Your task to perform on an android device: turn on improve location accuracy Image 0: 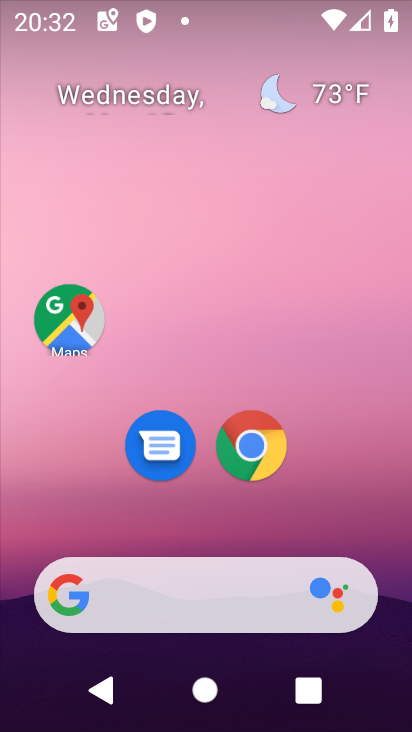
Step 0: drag from (322, 534) to (314, 182)
Your task to perform on an android device: turn on improve location accuracy Image 1: 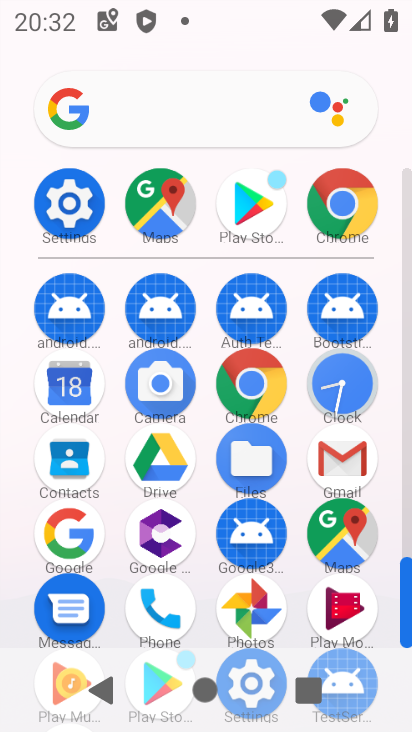
Step 1: click (69, 196)
Your task to perform on an android device: turn on improve location accuracy Image 2: 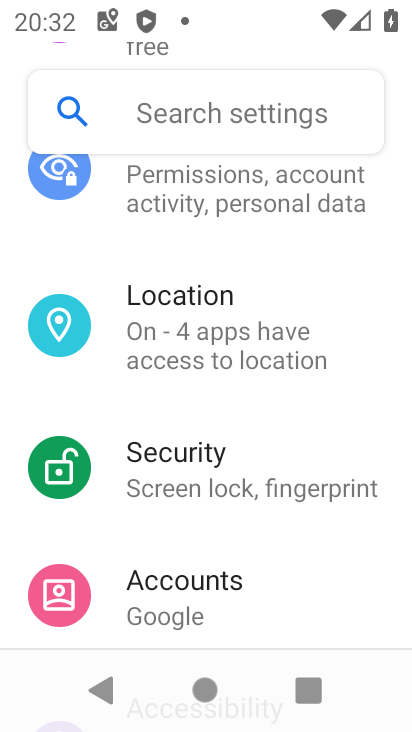
Step 2: click (234, 307)
Your task to perform on an android device: turn on improve location accuracy Image 3: 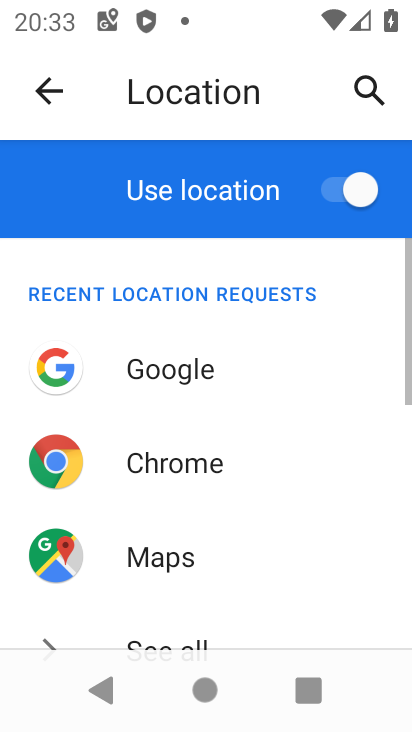
Step 3: drag from (245, 570) to (247, 256)
Your task to perform on an android device: turn on improve location accuracy Image 4: 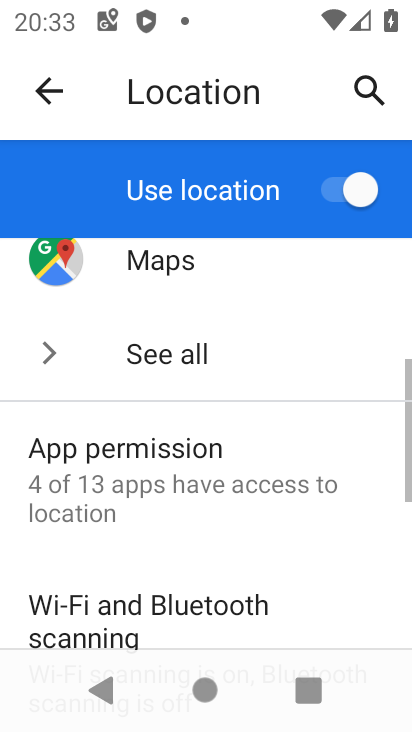
Step 4: drag from (244, 546) to (261, 290)
Your task to perform on an android device: turn on improve location accuracy Image 5: 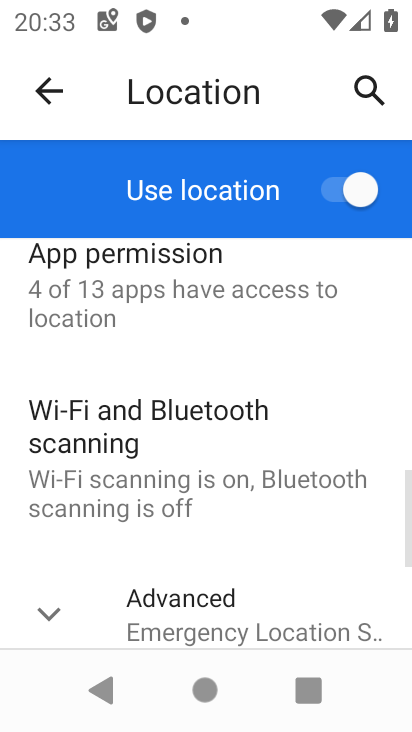
Step 5: drag from (215, 619) to (286, 303)
Your task to perform on an android device: turn on improve location accuracy Image 6: 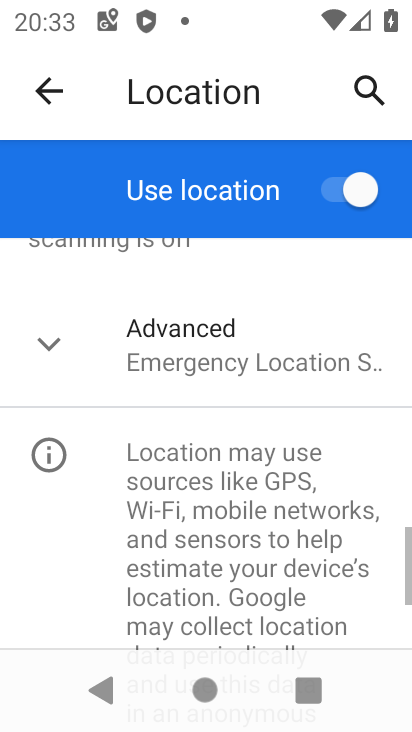
Step 6: click (132, 440)
Your task to perform on an android device: turn on improve location accuracy Image 7: 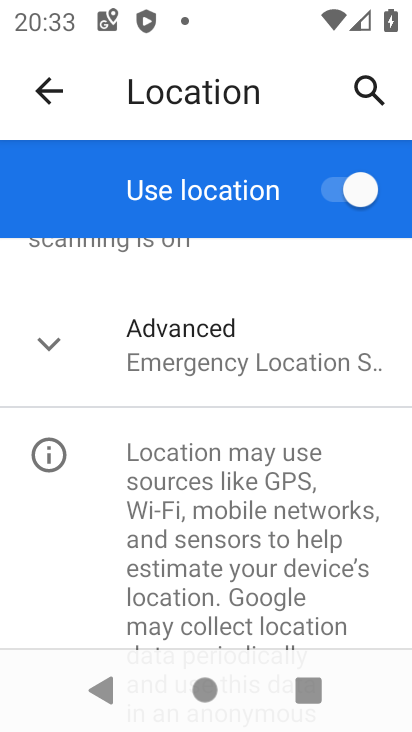
Step 7: click (144, 365)
Your task to perform on an android device: turn on improve location accuracy Image 8: 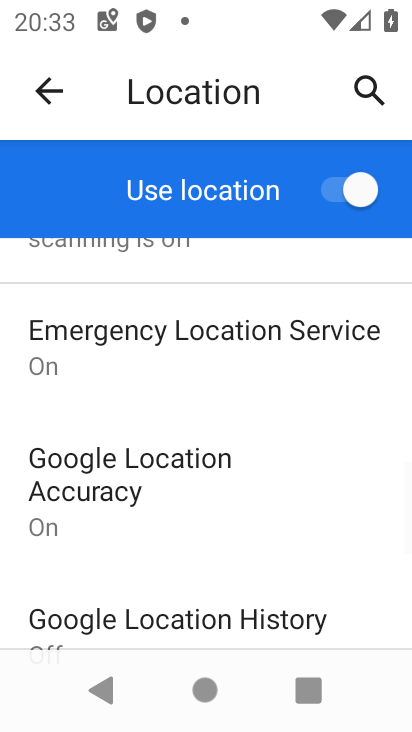
Step 8: drag from (172, 560) to (200, 412)
Your task to perform on an android device: turn on improve location accuracy Image 9: 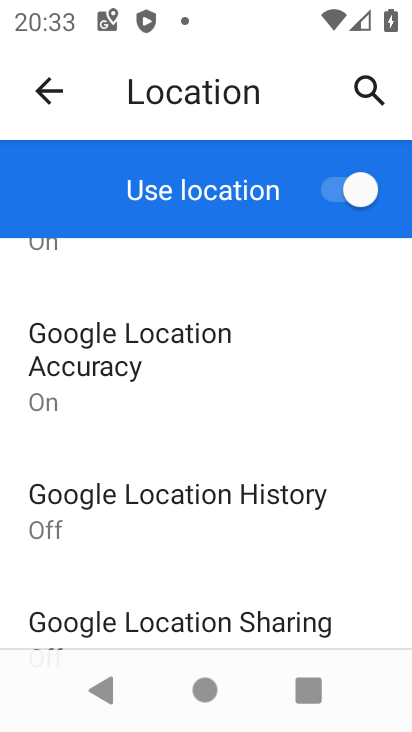
Step 9: click (142, 376)
Your task to perform on an android device: turn on improve location accuracy Image 10: 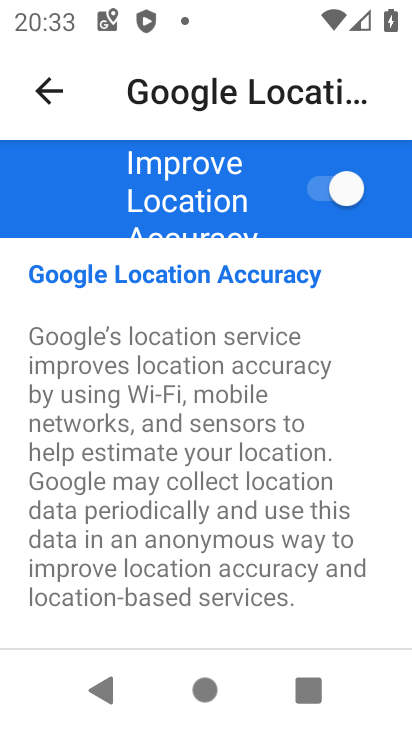
Step 10: click (326, 170)
Your task to perform on an android device: turn on improve location accuracy Image 11: 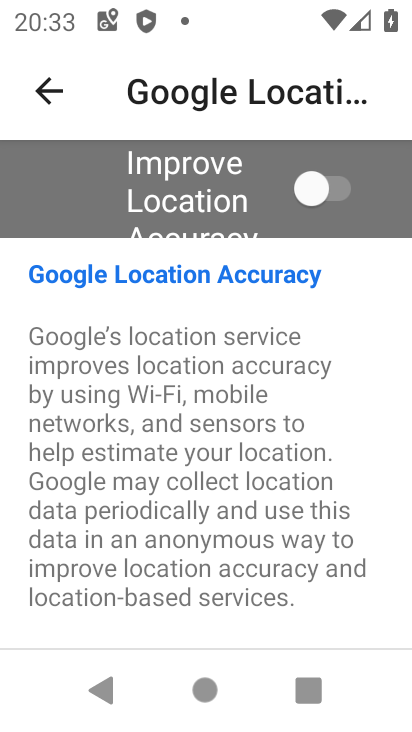
Step 11: task complete